Your task to perform on an android device: How much does a 3 bedroom apartment rent for in Denver? Image 0: 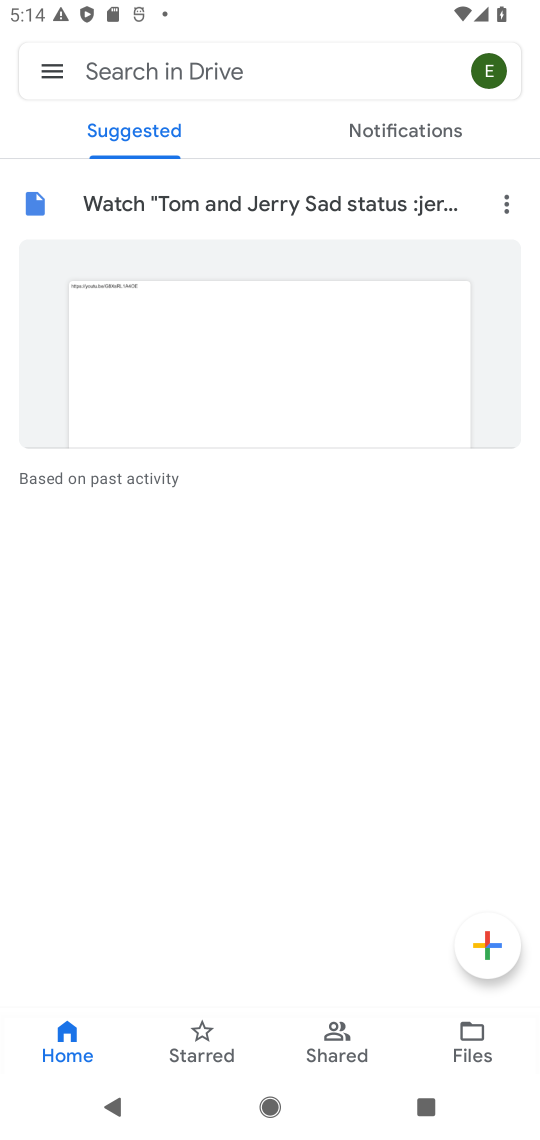
Step 0: press home button
Your task to perform on an android device: How much does a 3 bedroom apartment rent for in Denver? Image 1: 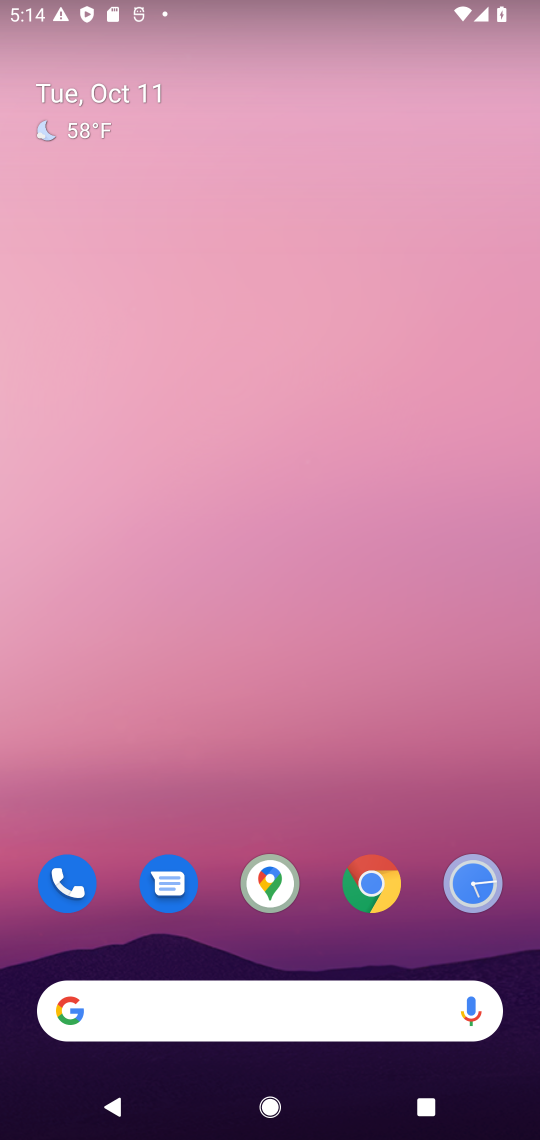
Step 1: drag from (321, 951) to (262, 84)
Your task to perform on an android device: How much does a 3 bedroom apartment rent for in Denver? Image 2: 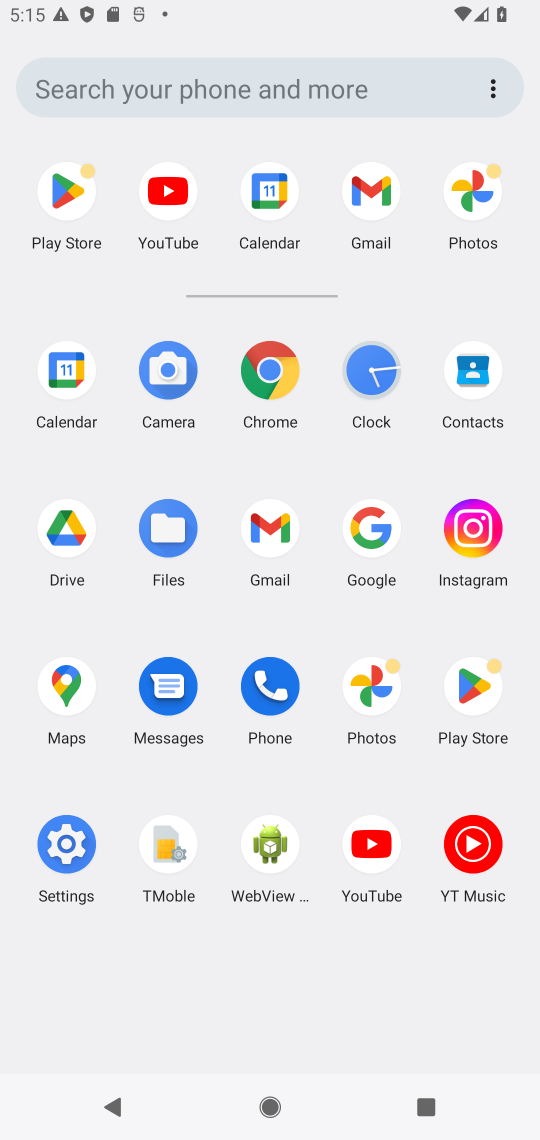
Step 2: click (275, 367)
Your task to perform on an android device: How much does a 3 bedroom apartment rent for in Denver? Image 3: 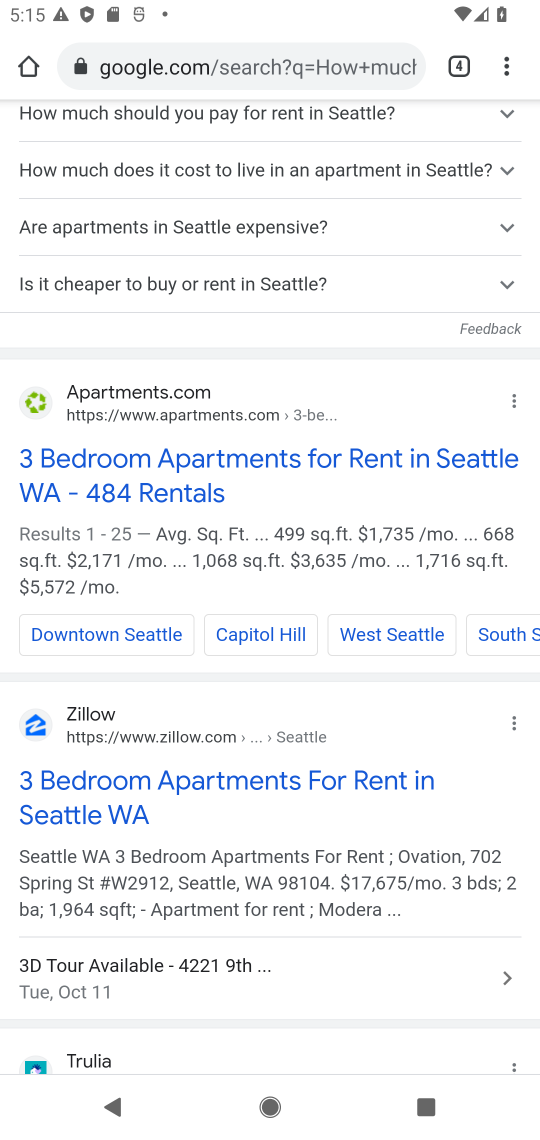
Step 3: click (297, 59)
Your task to perform on an android device: How much does a 3 bedroom apartment rent for in Denver? Image 4: 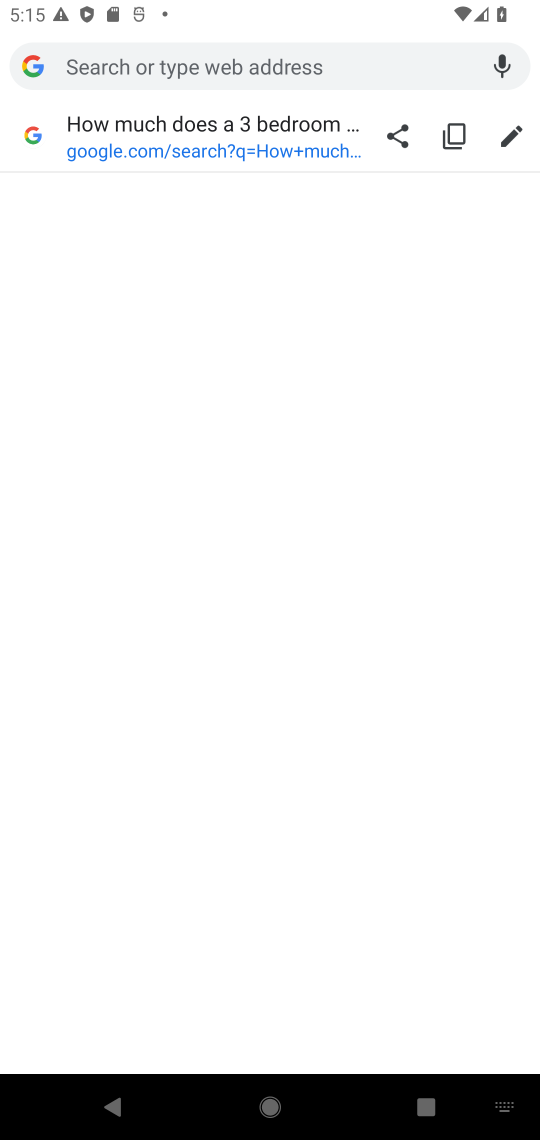
Step 4: type "How much does a 3 bedroom apartment rent for in Denver?"
Your task to perform on an android device: How much does a 3 bedroom apartment rent for in Denver? Image 5: 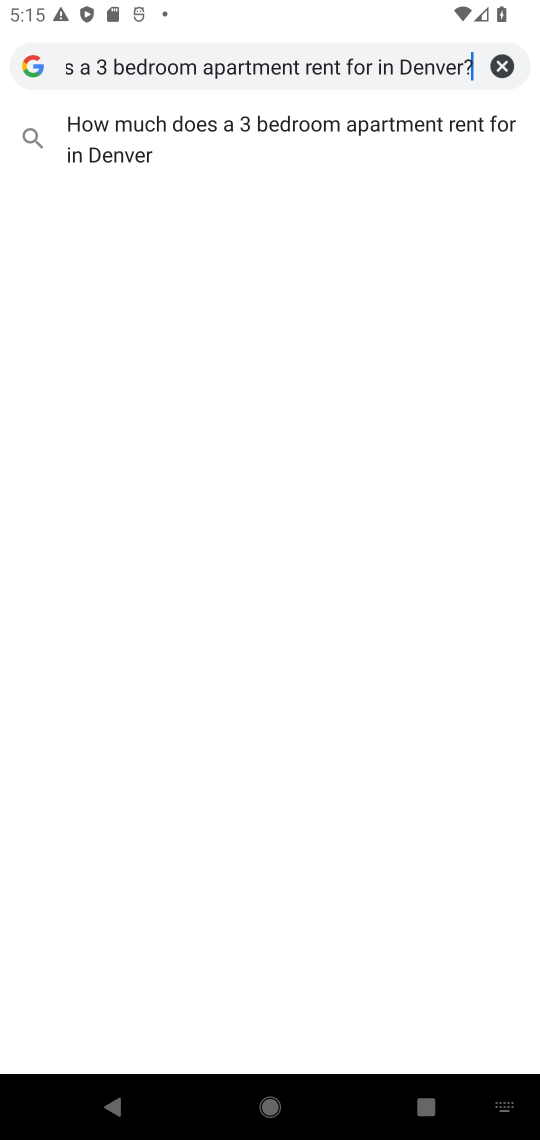
Step 5: press enter
Your task to perform on an android device: How much does a 3 bedroom apartment rent for in Denver? Image 6: 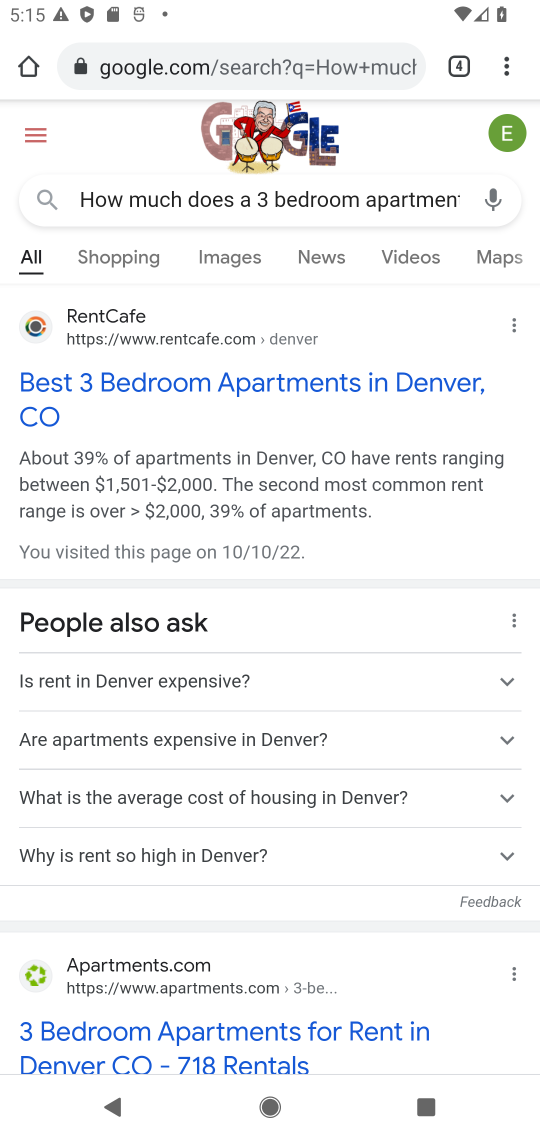
Step 6: drag from (282, 876) to (173, 288)
Your task to perform on an android device: How much does a 3 bedroom apartment rent for in Denver? Image 7: 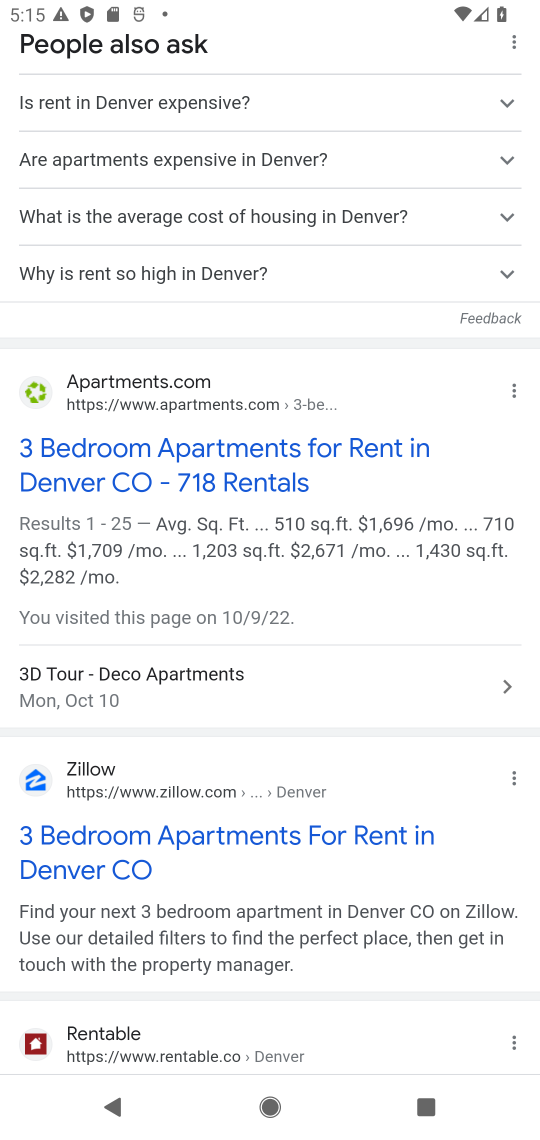
Step 7: click (255, 466)
Your task to perform on an android device: How much does a 3 bedroom apartment rent for in Denver? Image 8: 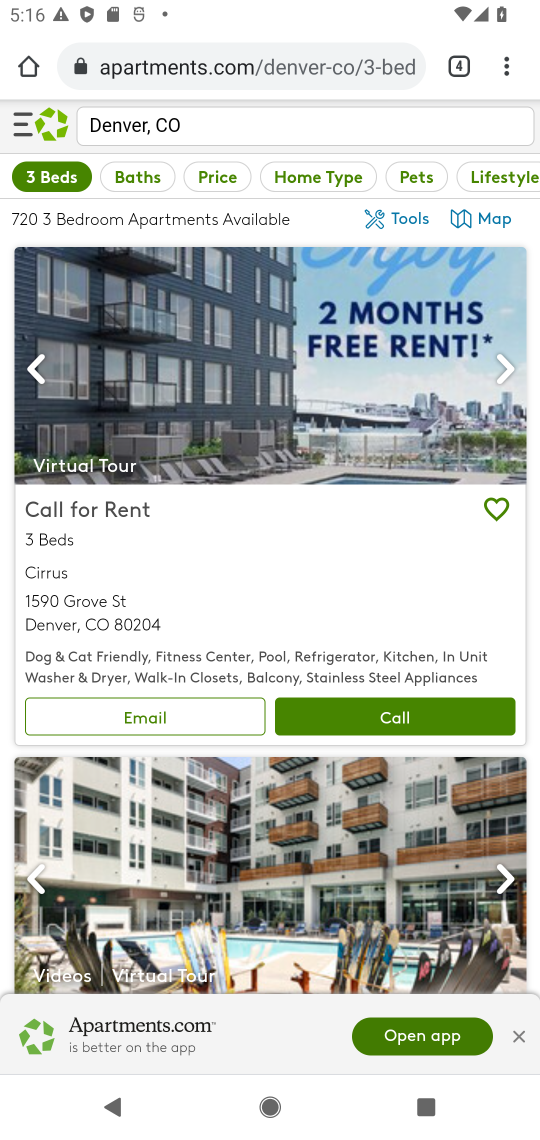
Step 8: task complete